Your task to perform on an android device: toggle priority inbox in the gmail app Image 0: 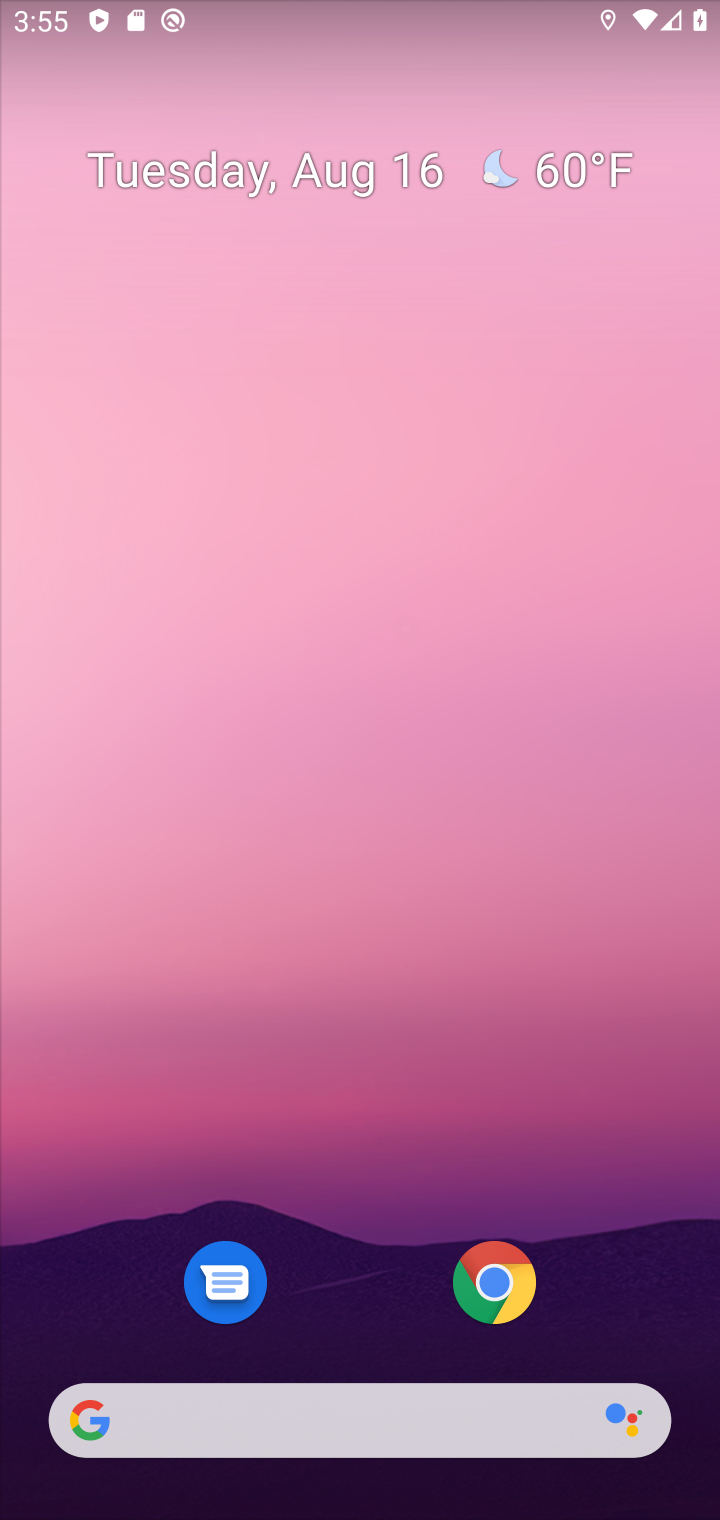
Step 0: press back button
Your task to perform on an android device: toggle priority inbox in the gmail app Image 1: 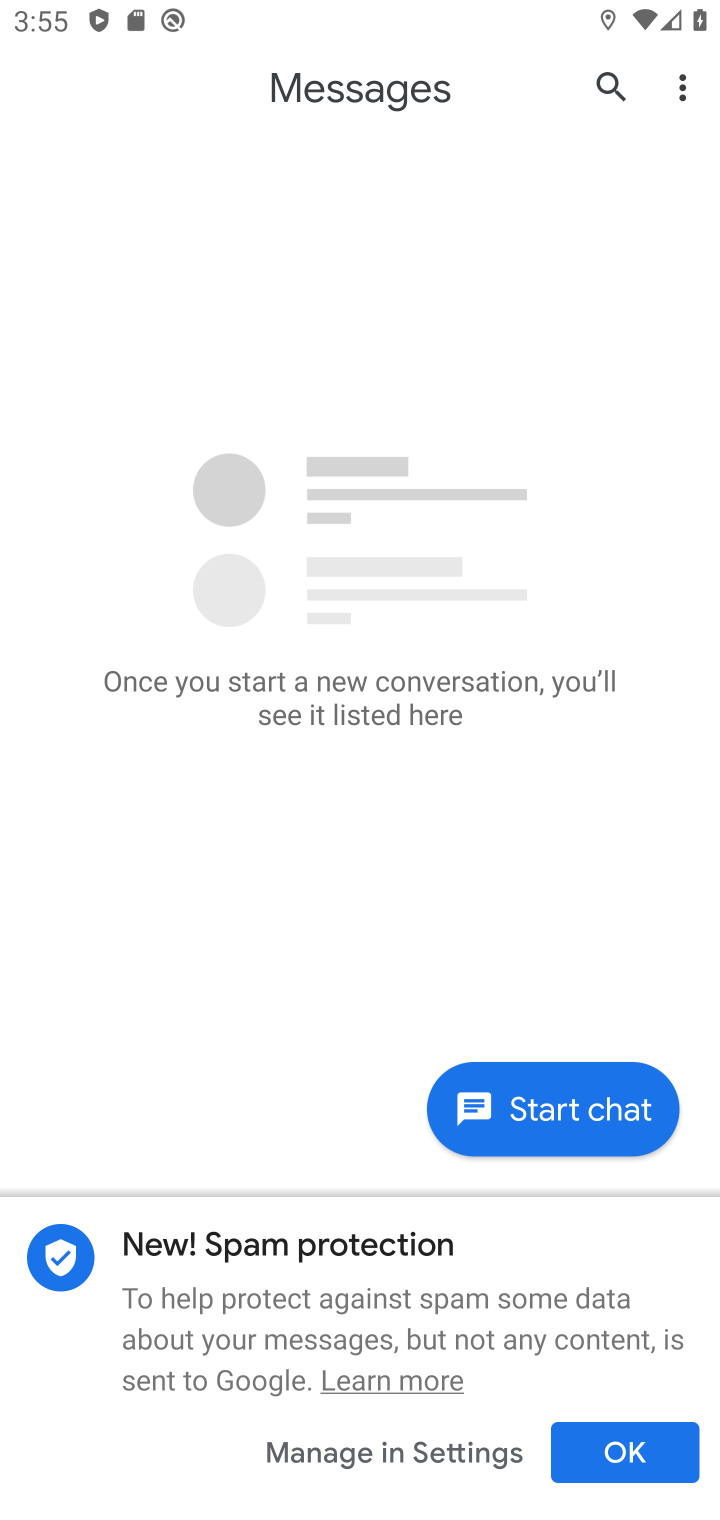
Step 1: click (500, 1271)
Your task to perform on an android device: toggle priority inbox in the gmail app Image 2: 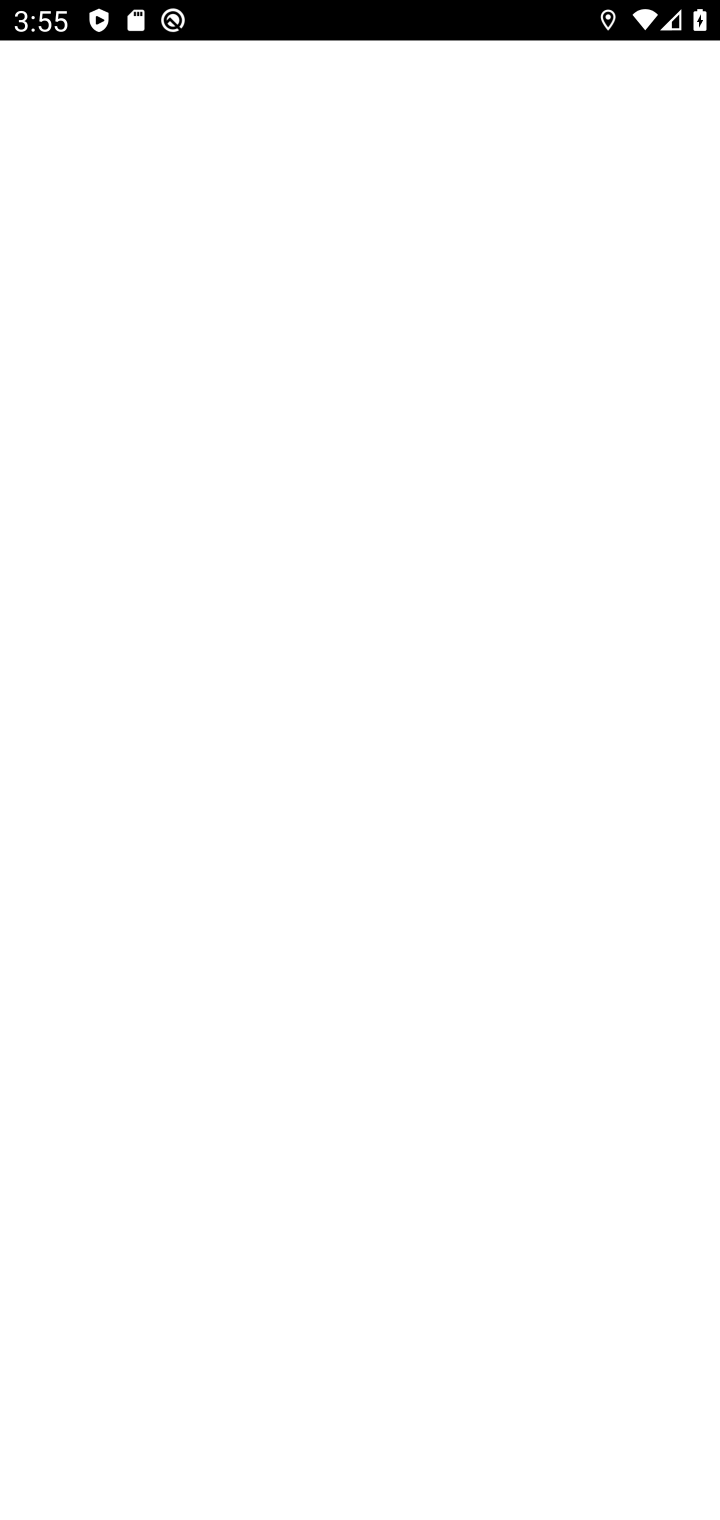
Step 2: press back button
Your task to perform on an android device: toggle priority inbox in the gmail app Image 3: 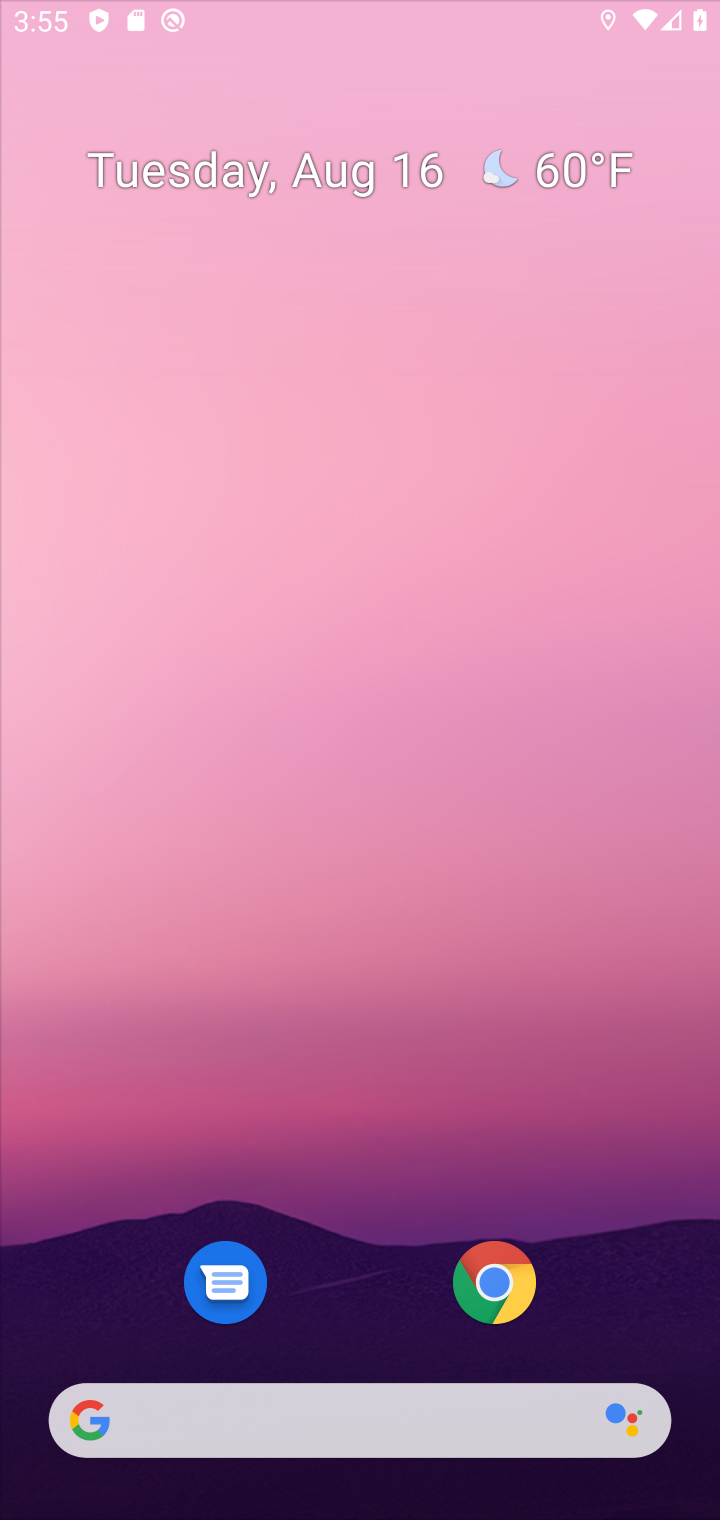
Step 3: press back button
Your task to perform on an android device: toggle priority inbox in the gmail app Image 4: 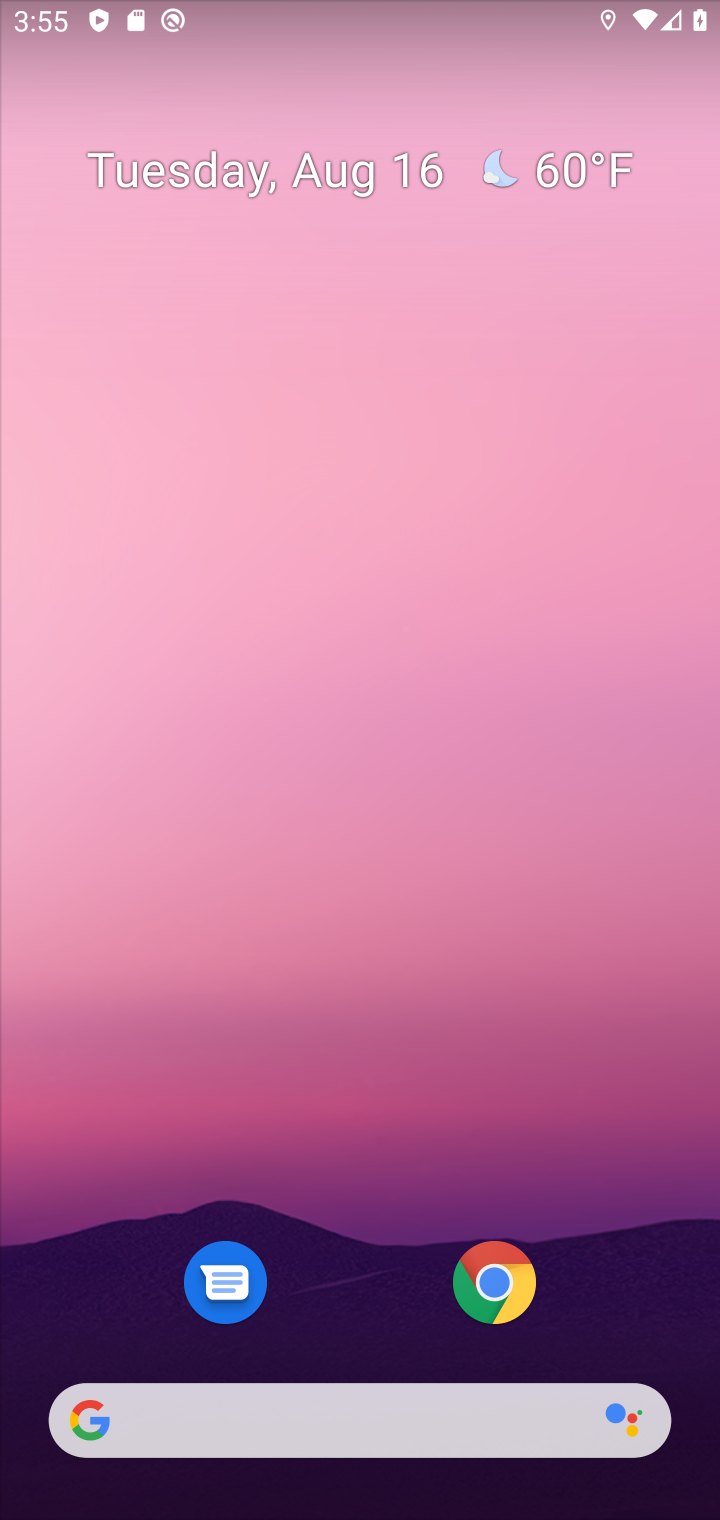
Step 4: drag from (398, 1300) to (636, 30)
Your task to perform on an android device: toggle priority inbox in the gmail app Image 5: 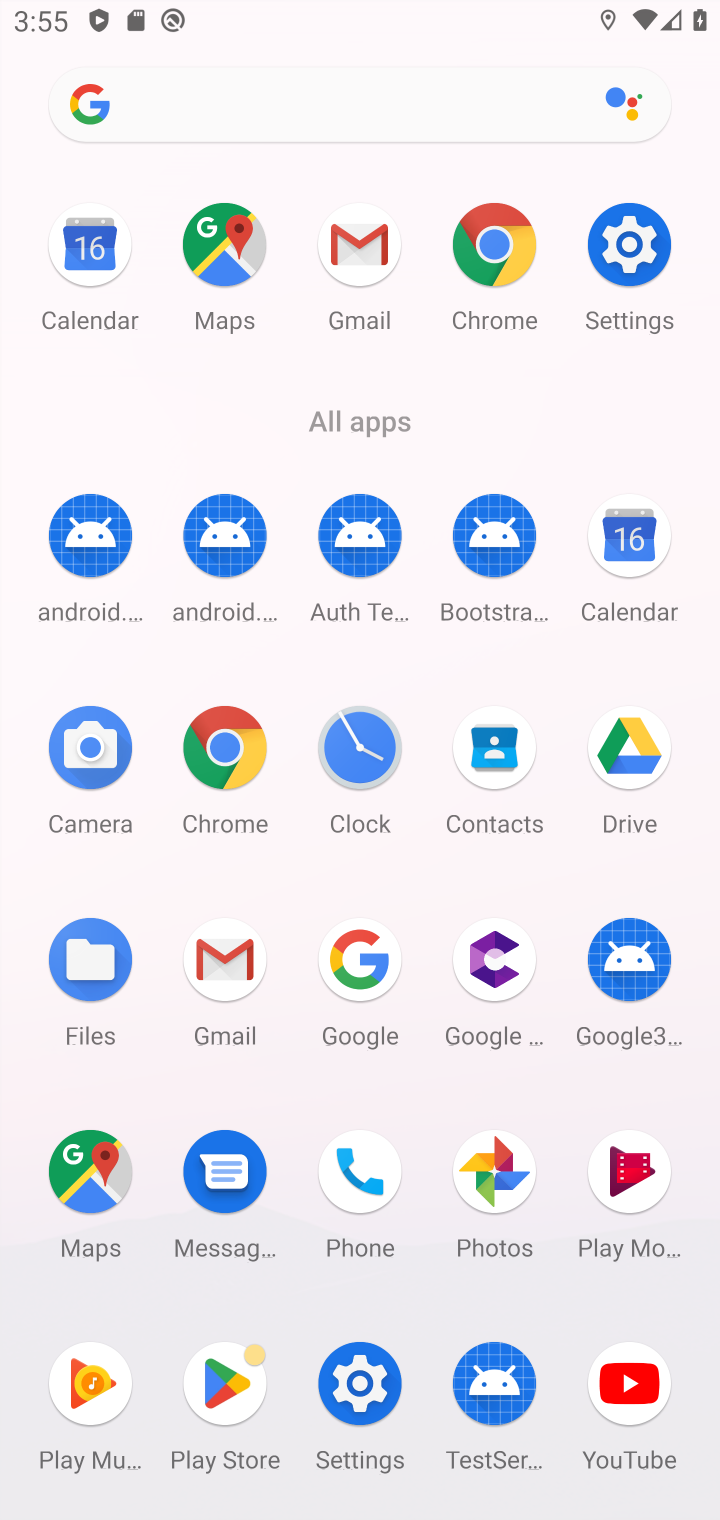
Step 5: click (362, 247)
Your task to perform on an android device: toggle priority inbox in the gmail app Image 6: 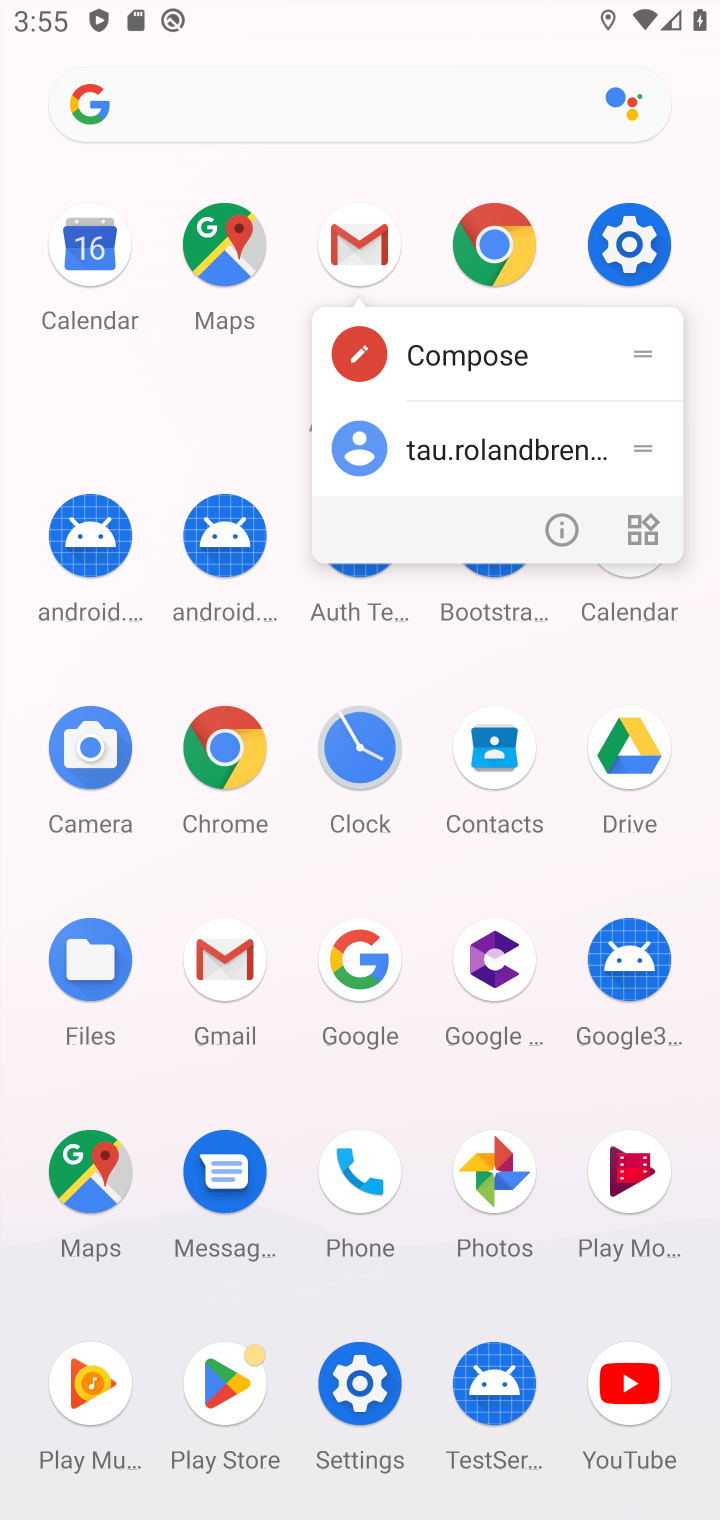
Step 6: click (358, 249)
Your task to perform on an android device: toggle priority inbox in the gmail app Image 7: 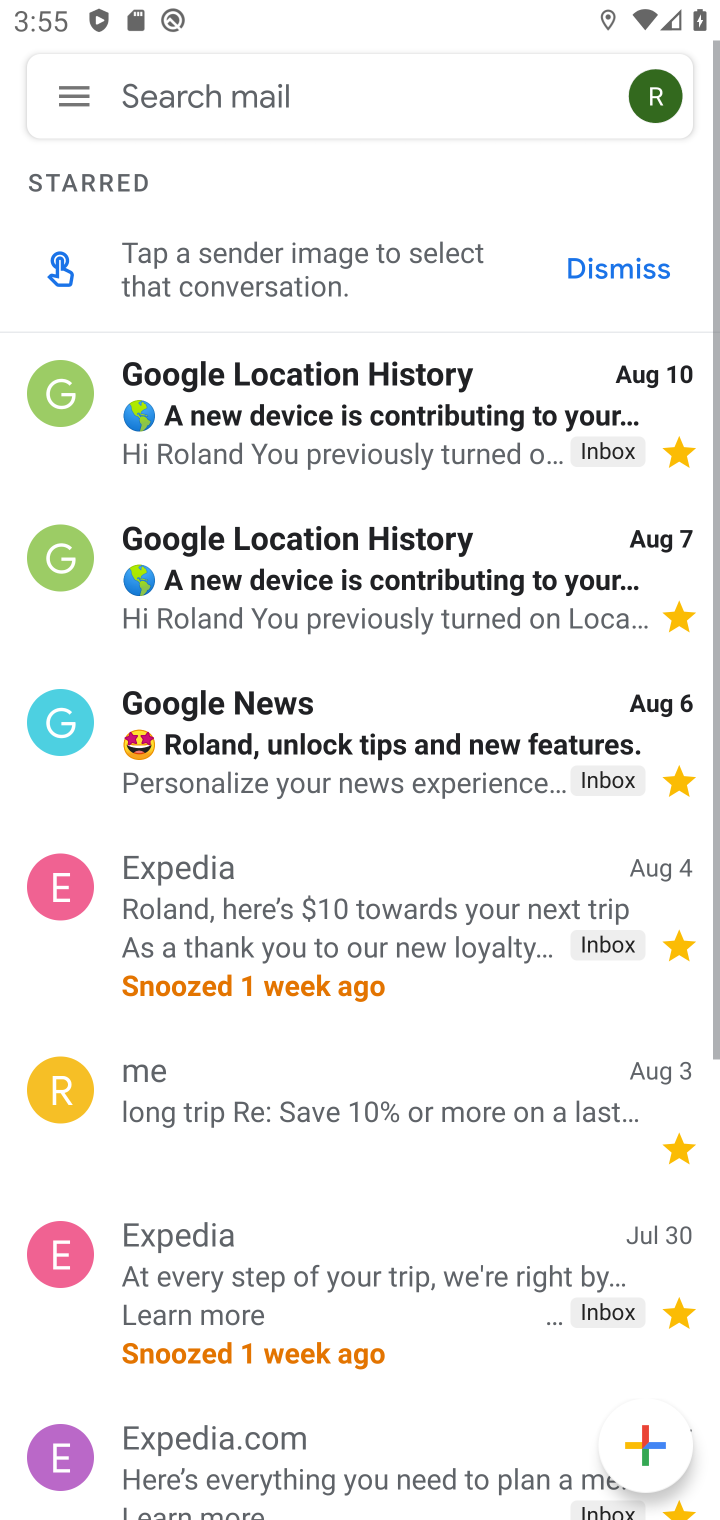
Step 7: click (75, 99)
Your task to perform on an android device: toggle priority inbox in the gmail app Image 8: 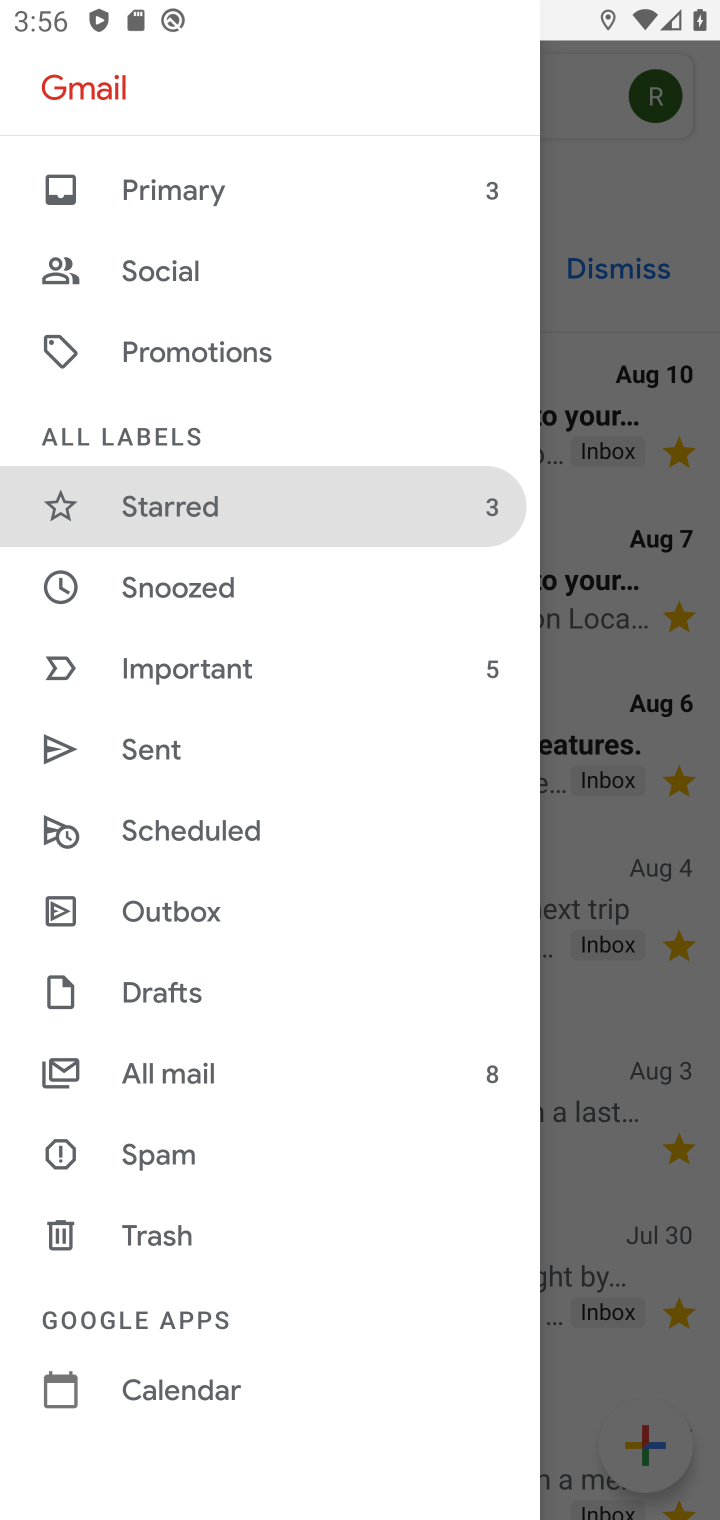
Step 8: drag from (168, 1356) to (352, 73)
Your task to perform on an android device: toggle priority inbox in the gmail app Image 9: 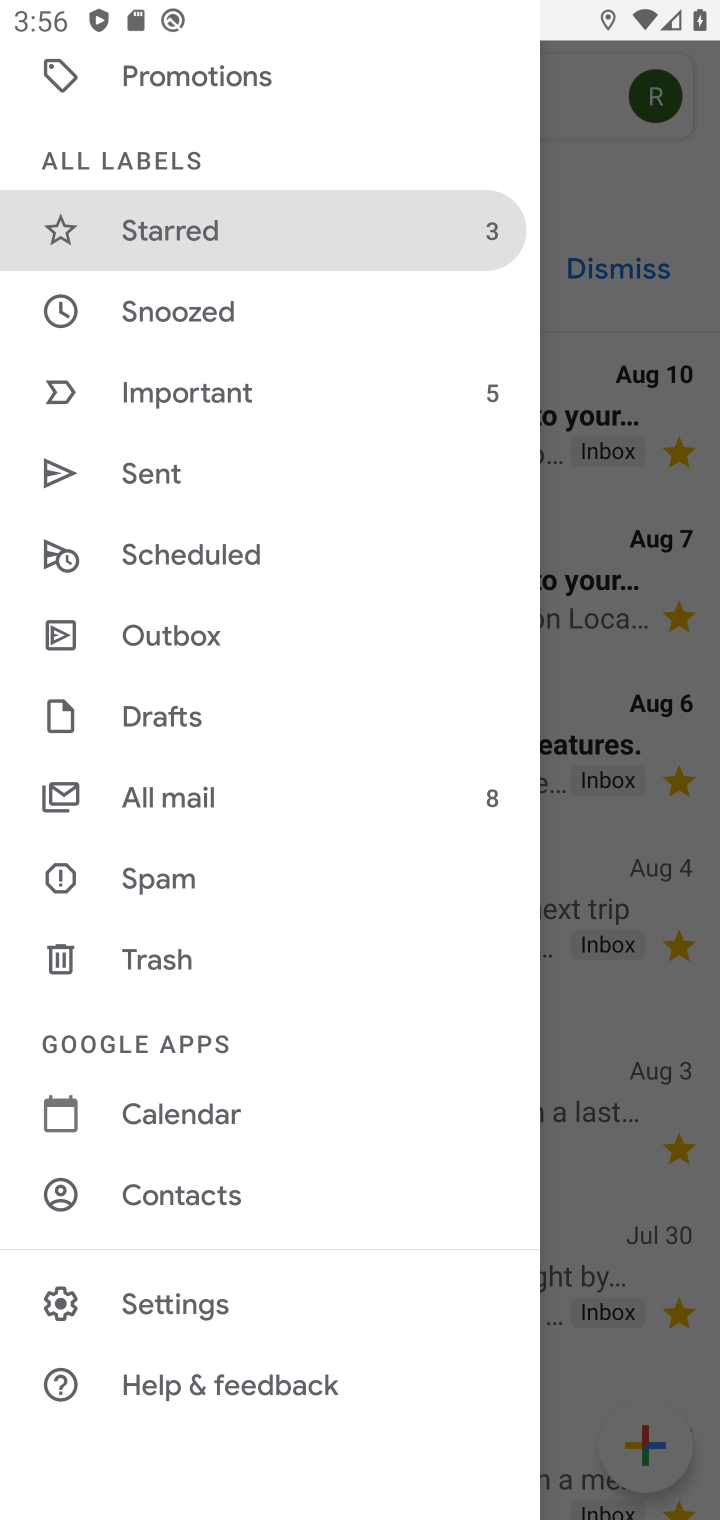
Step 9: click (190, 1304)
Your task to perform on an android device: toggle priority inbox in the gmail app Image 10: 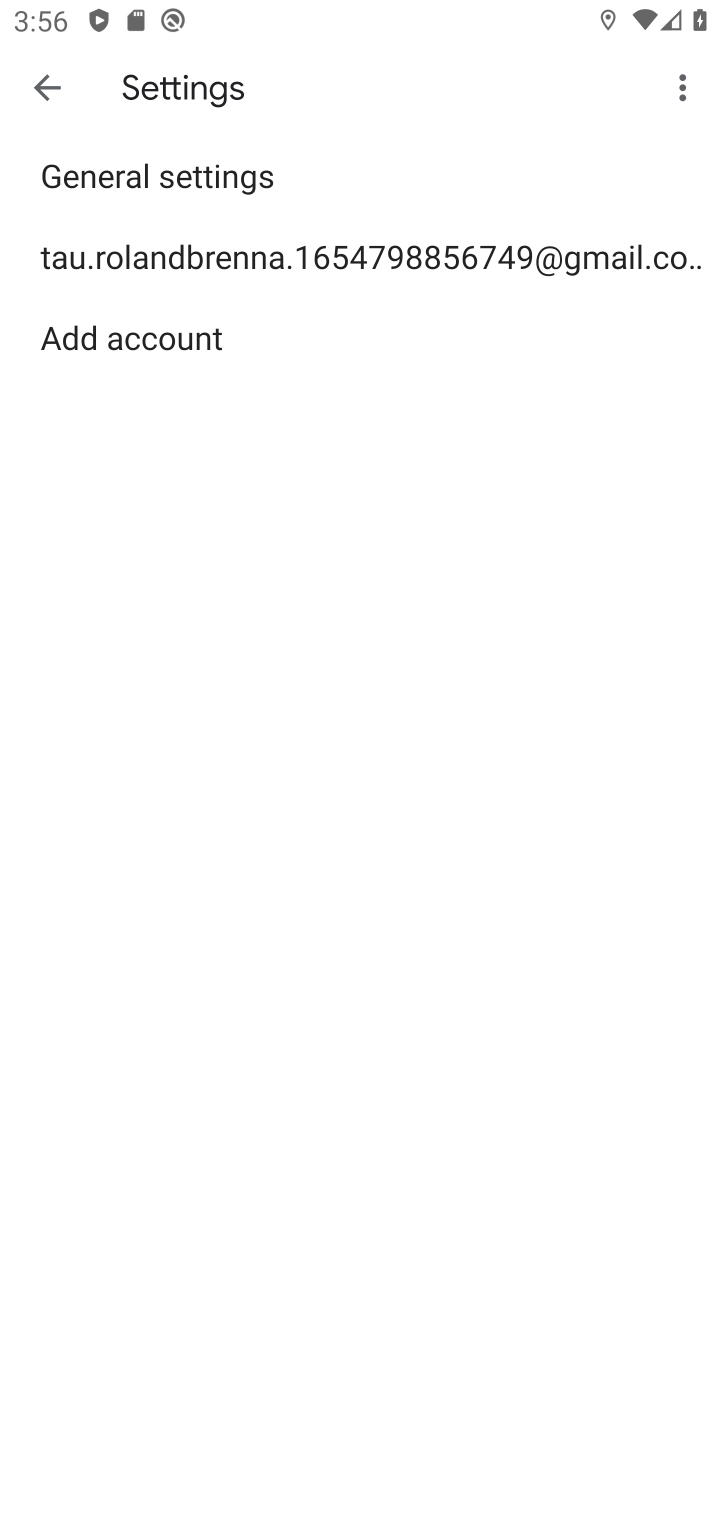
Step 10: click (333, 236)
Your task to perform on an android device: toggle priority inbox in the gmail app Image 11: 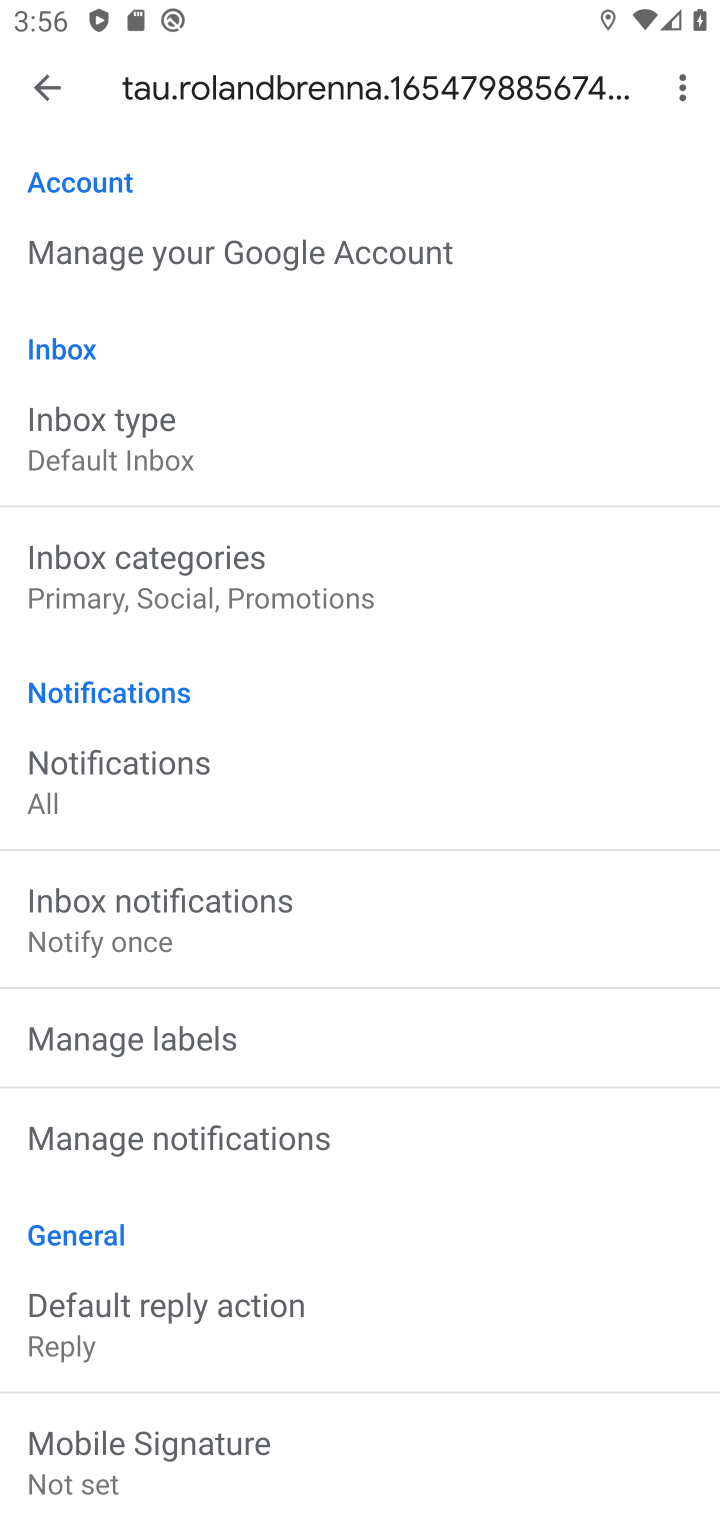
Step 11: click (227, 419)
Your task to perform on an android device: toggle priority inbox in the gmail app Image 12: 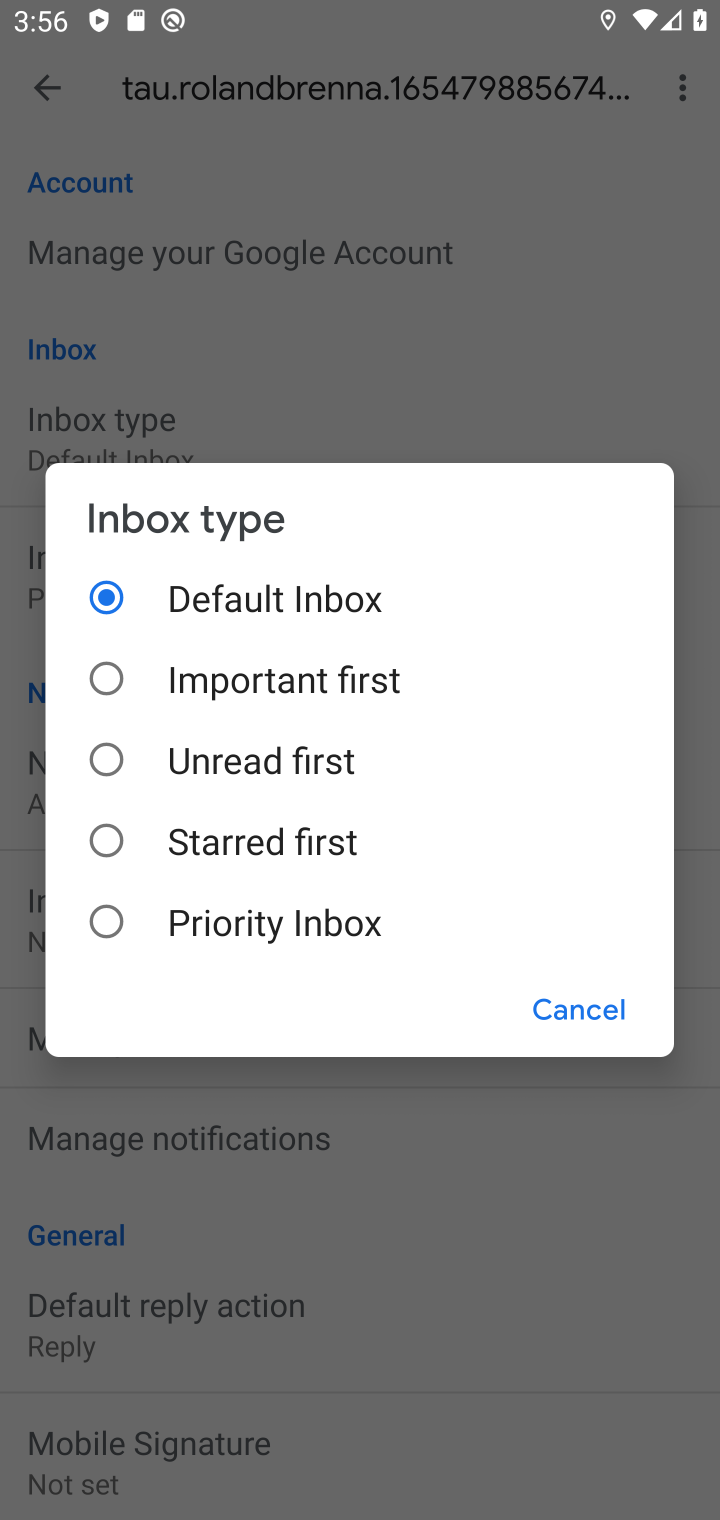
Step 12: click (102, 919)
Your task to perform on an android device: toggle priority inbox in the gmail app Image 13: 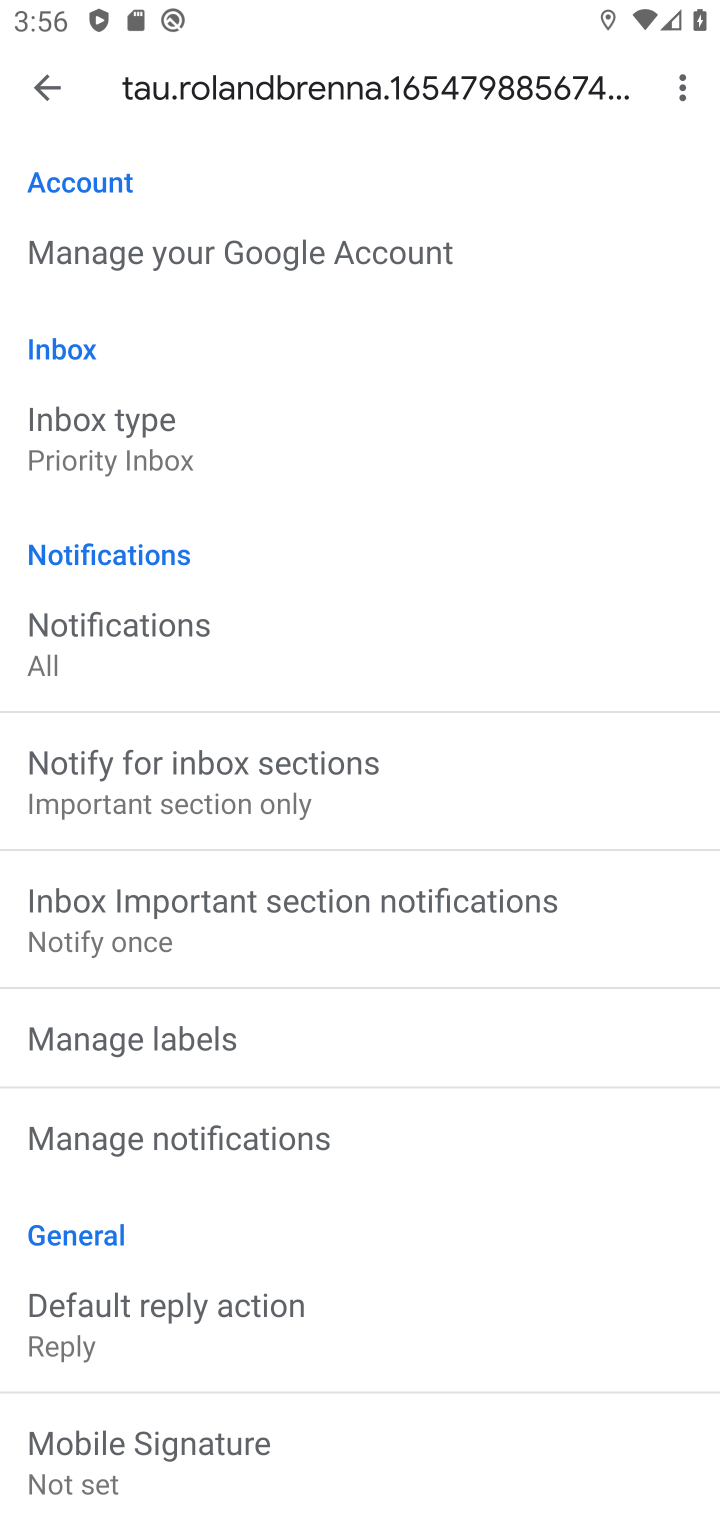
Step 13: task complete